Your task to perform on an android device: Toggle the flashlight Image 0: 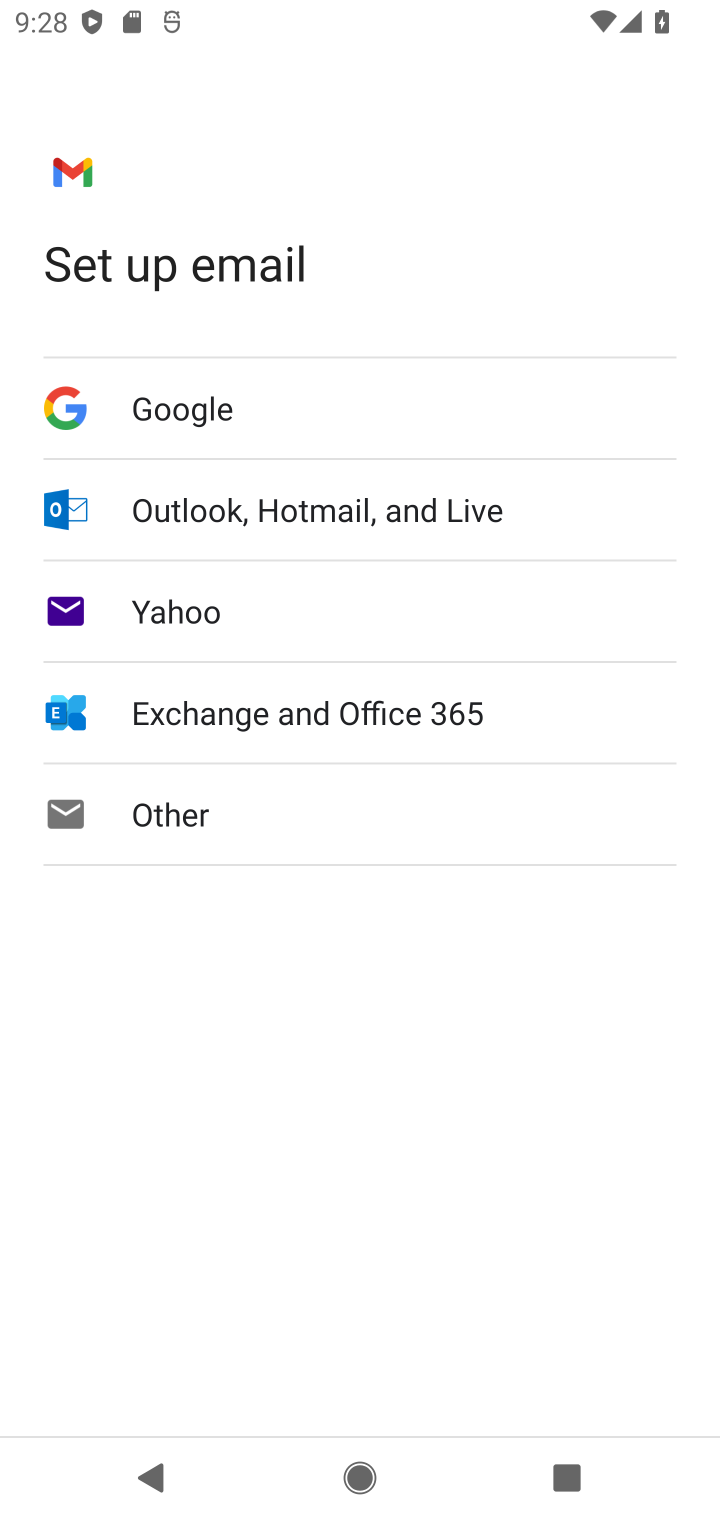
Step 0: press home button
Your task to perform on an android device: Toggle the flashlight Image 1: 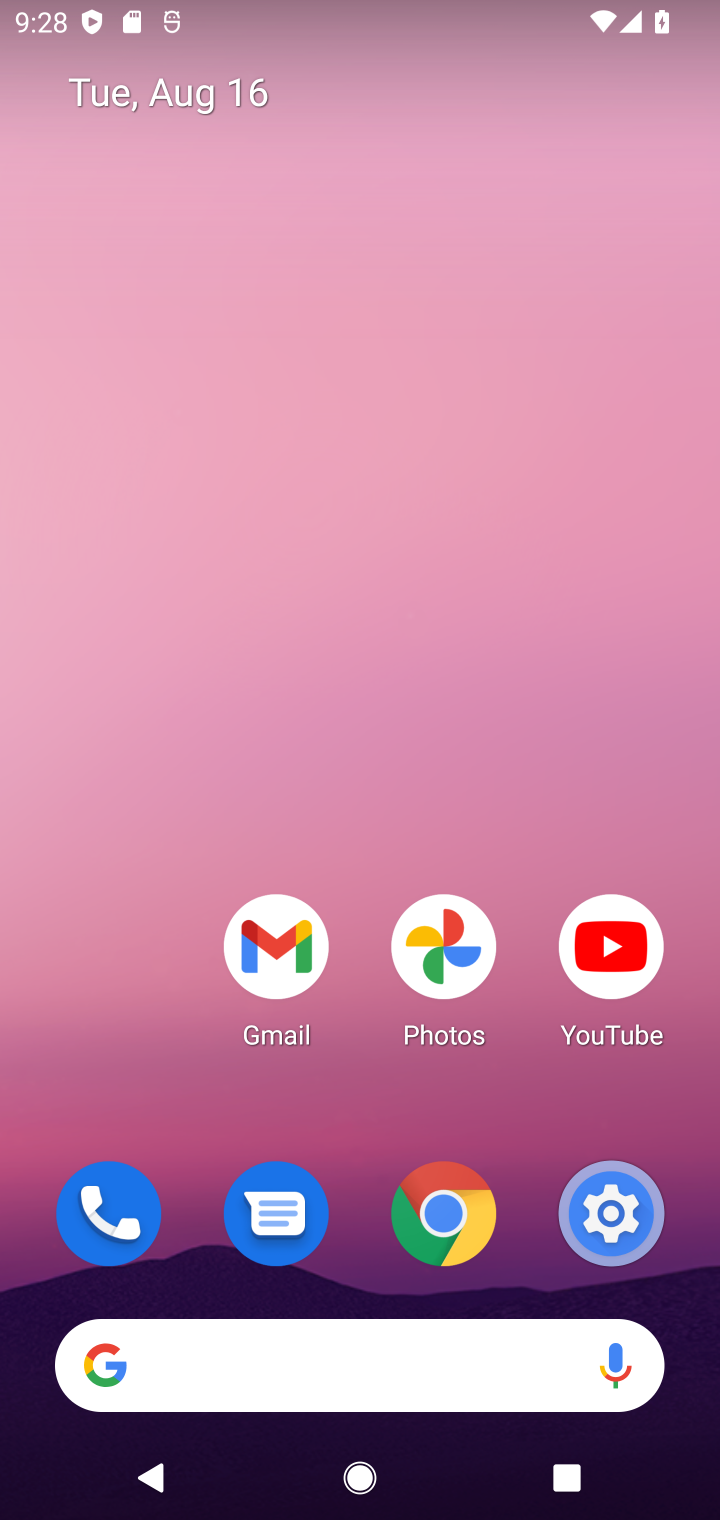
Step 1: drag from (383, 887) to (399, 115)
Your task to perform on an android device: Toggle the flashlight Image 2: 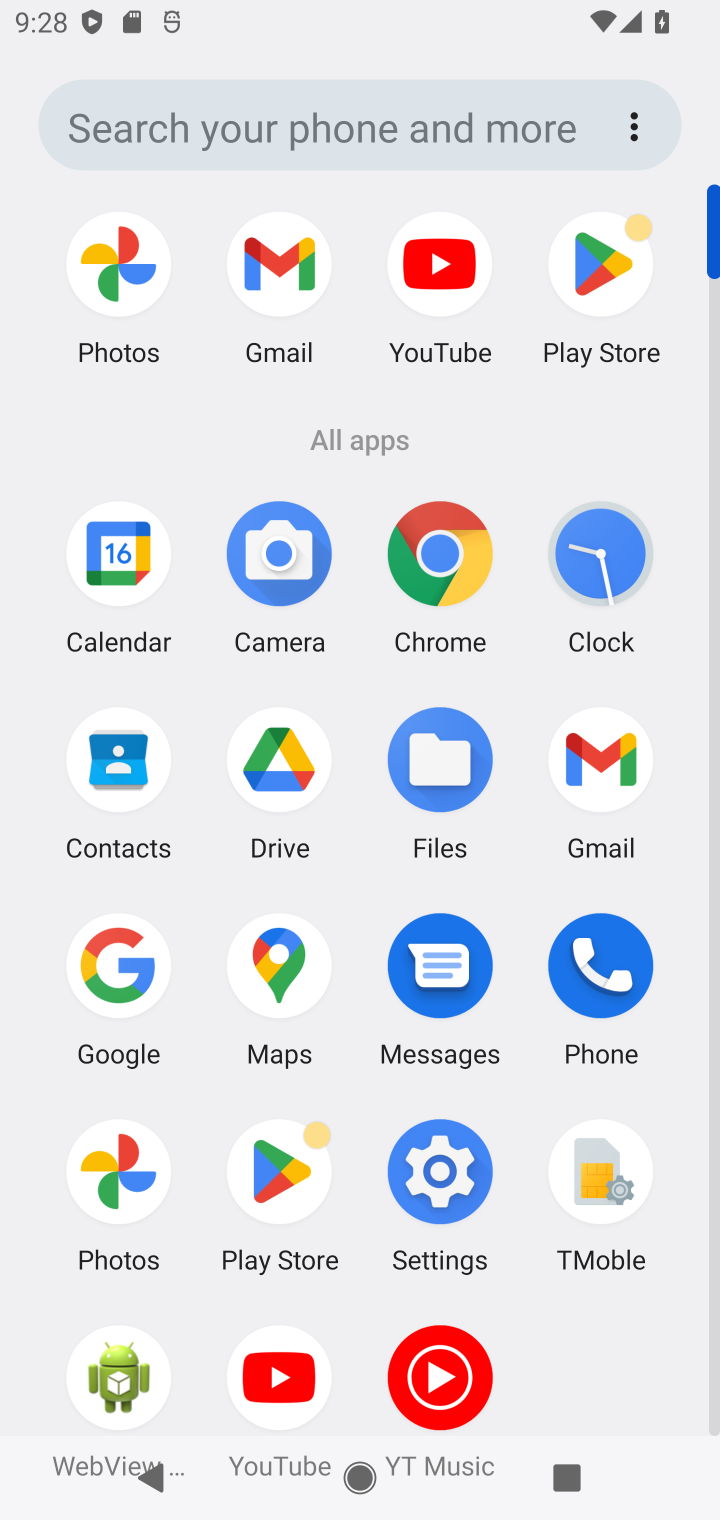
Step 2: click (430, 1182)
Your task to perform on an android device: Toggle the flashlight Image 3: 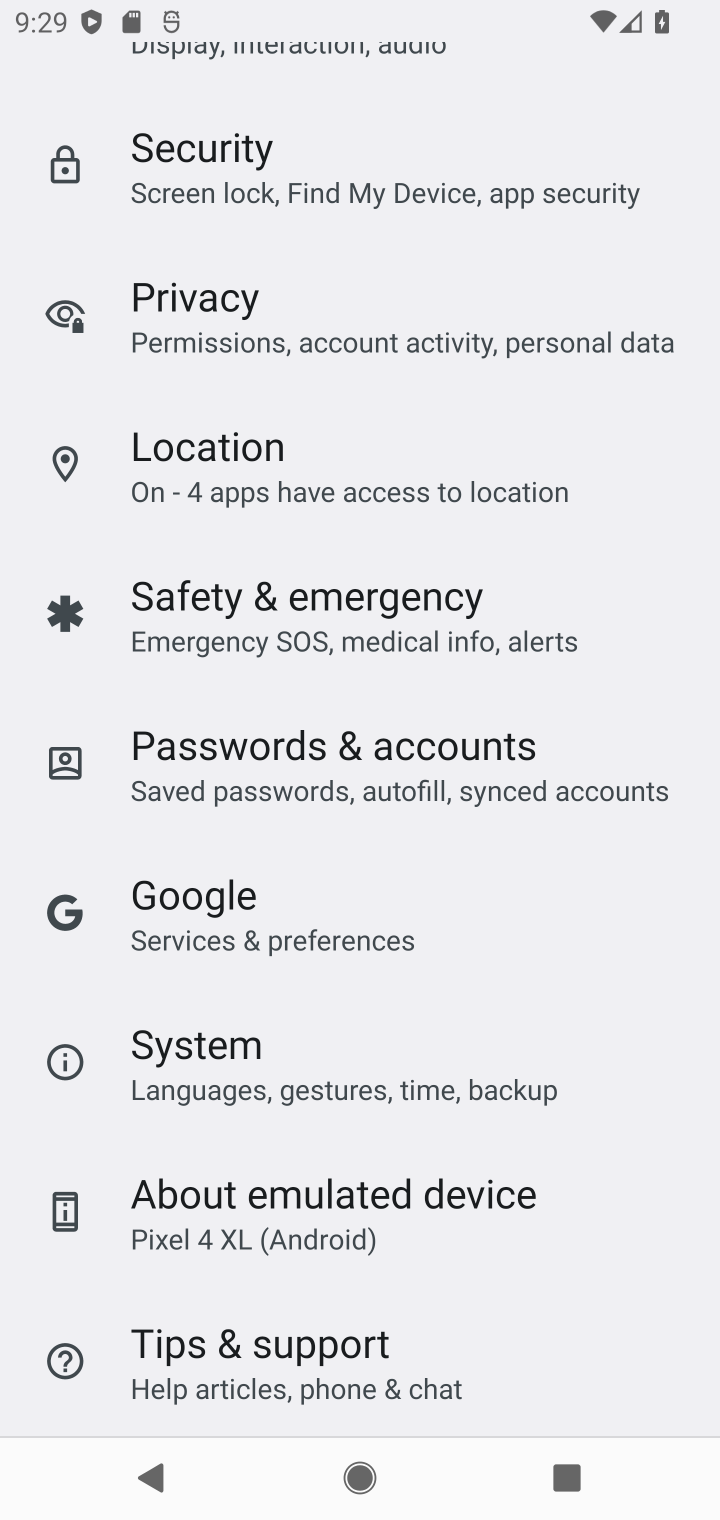
Step 3: task complete